Your task to perform on an android device: Add "energizer triple a" to the cart on ebay.com, then select checkout. Image 0: 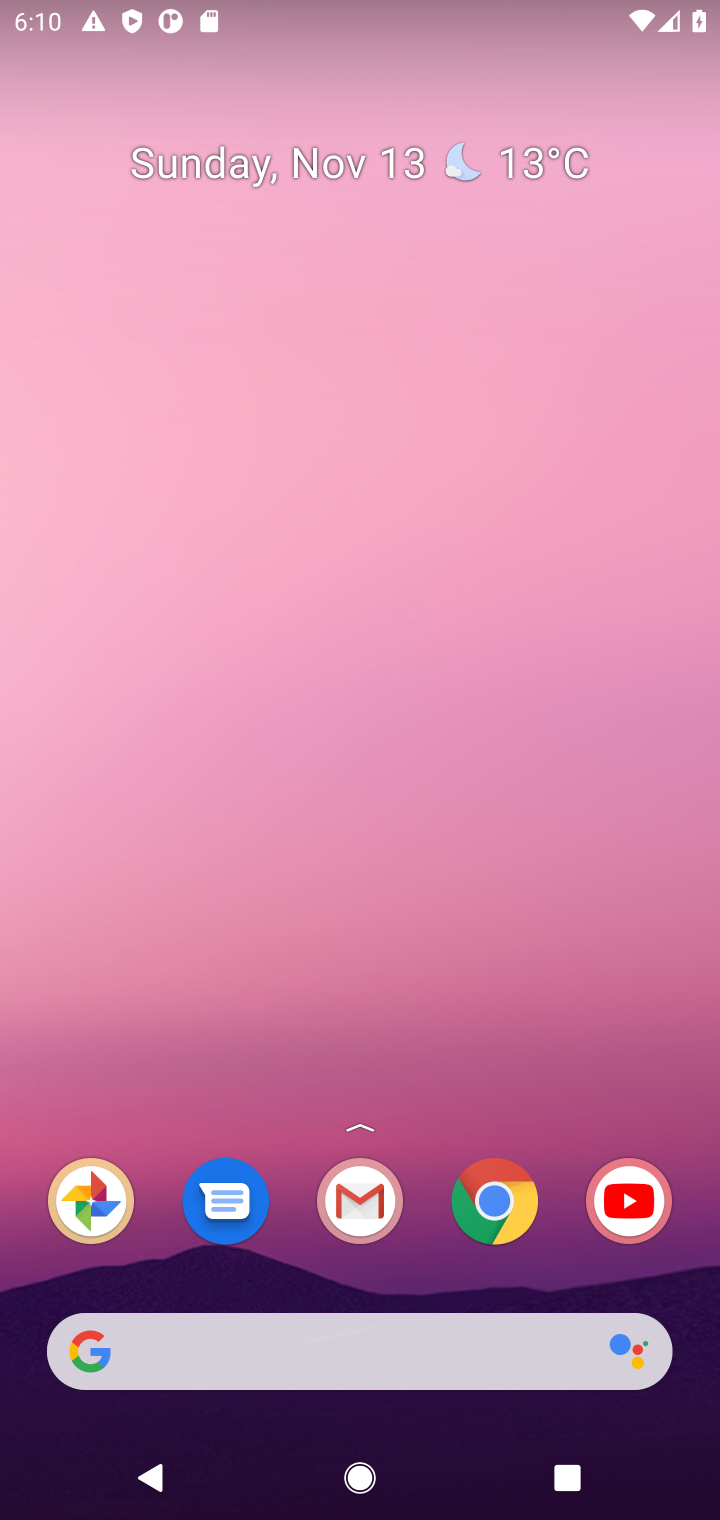
Step 0: drag from (454, 1288) to (410, 277)
Your task to perform on an android device: Add "energizer triple a" to the cart on ebay.com, then select checkout. Image 1: 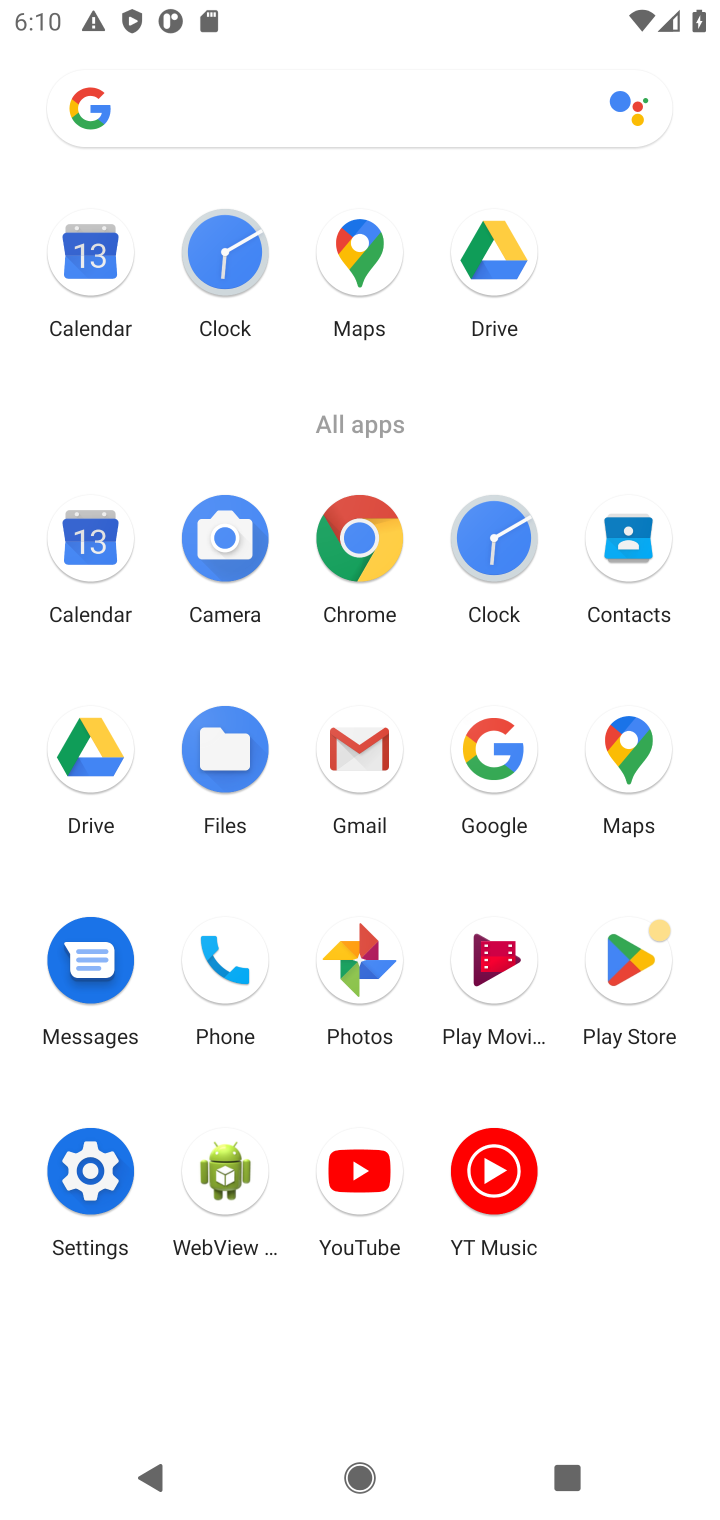
Step 1: click (371, 537)
Your task to perform on an android device: Add "energizer triple a" to the cart on ebay.com, then select checkout. Image 2: 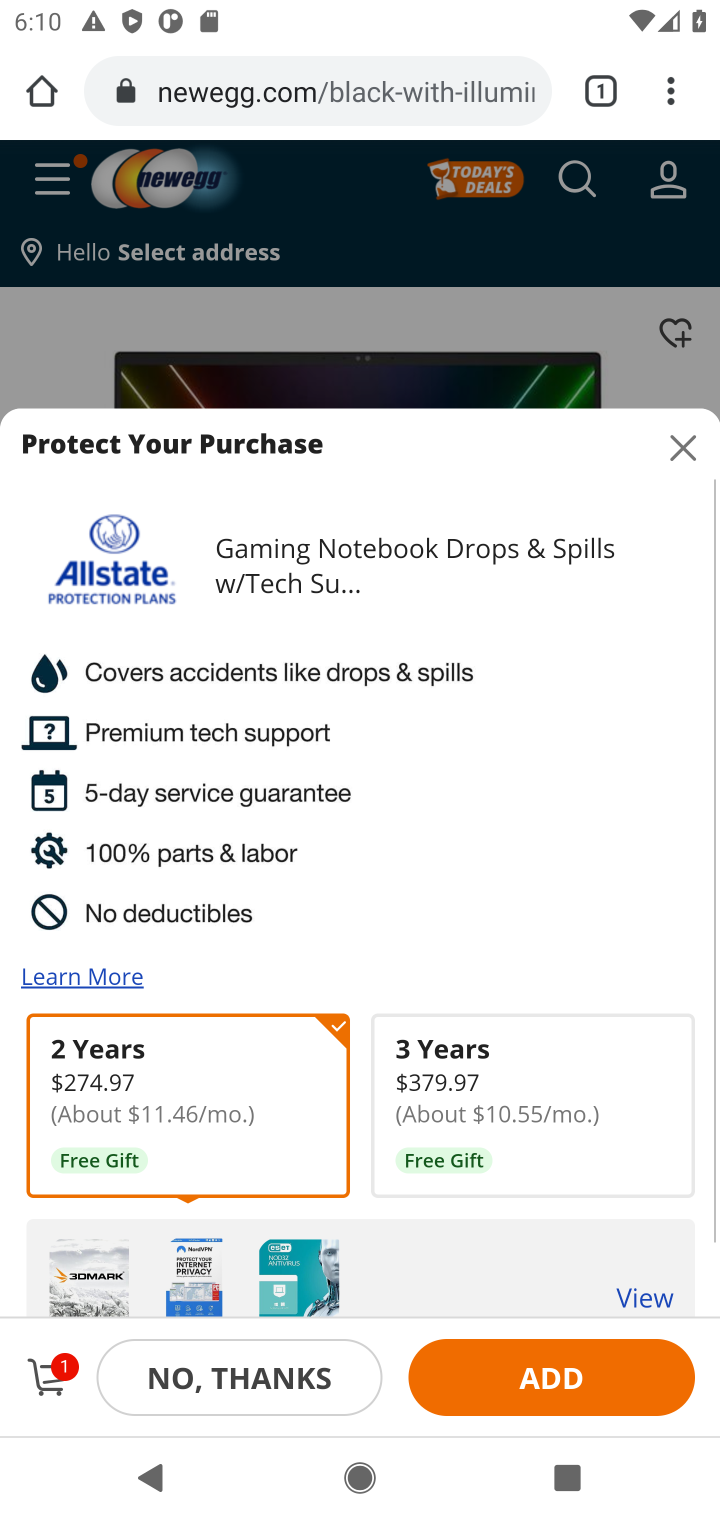
Step 2: click (340, 91)
Your task to perform on an android device: Add "energizer triple a" to the cart on ebay.com, then select checkout. Image 3: 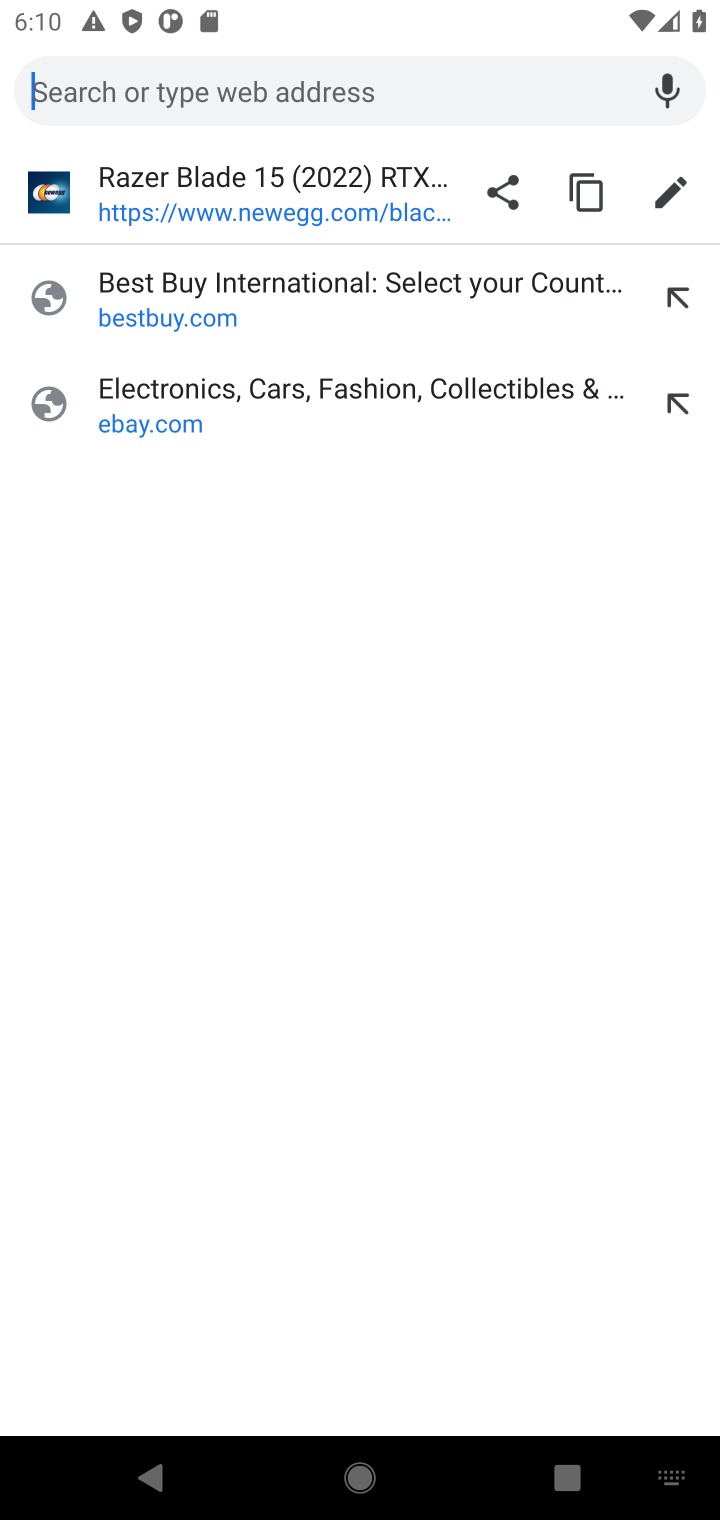
Step 3: type "ebay.com"
Your task to perform on an android device: Add "energizer triple a" to the cart on ebay.com, then select checkout. Image 4: 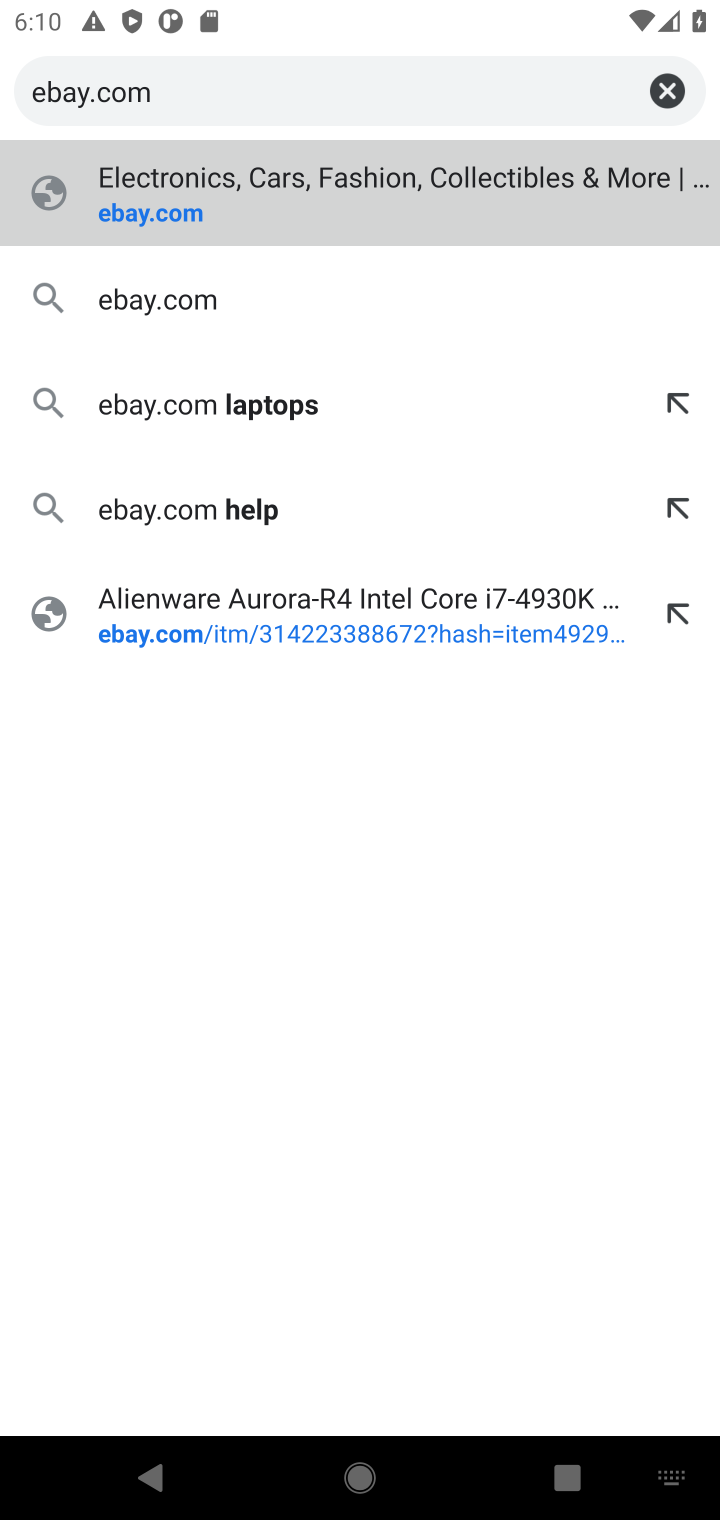
Step 4: press enter
Your task to perform on an android device: Add "energizer triple a" to the cart on ebay.com, then select checkout. Image 5: 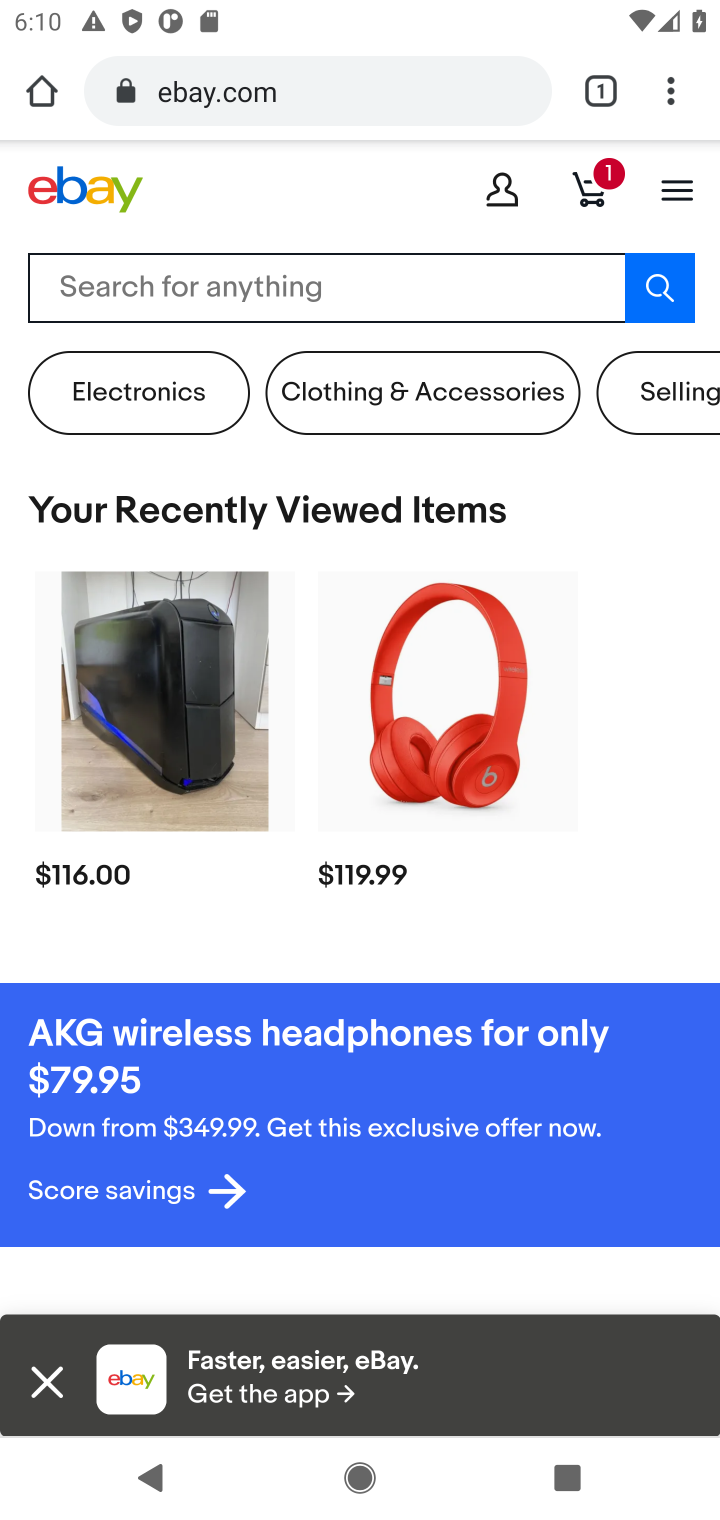
Step 5: click (399, 885)
Your task to perform on an android device: Add "energizer triple a" to the cart on ebay.com, then select checkout. Image 6: 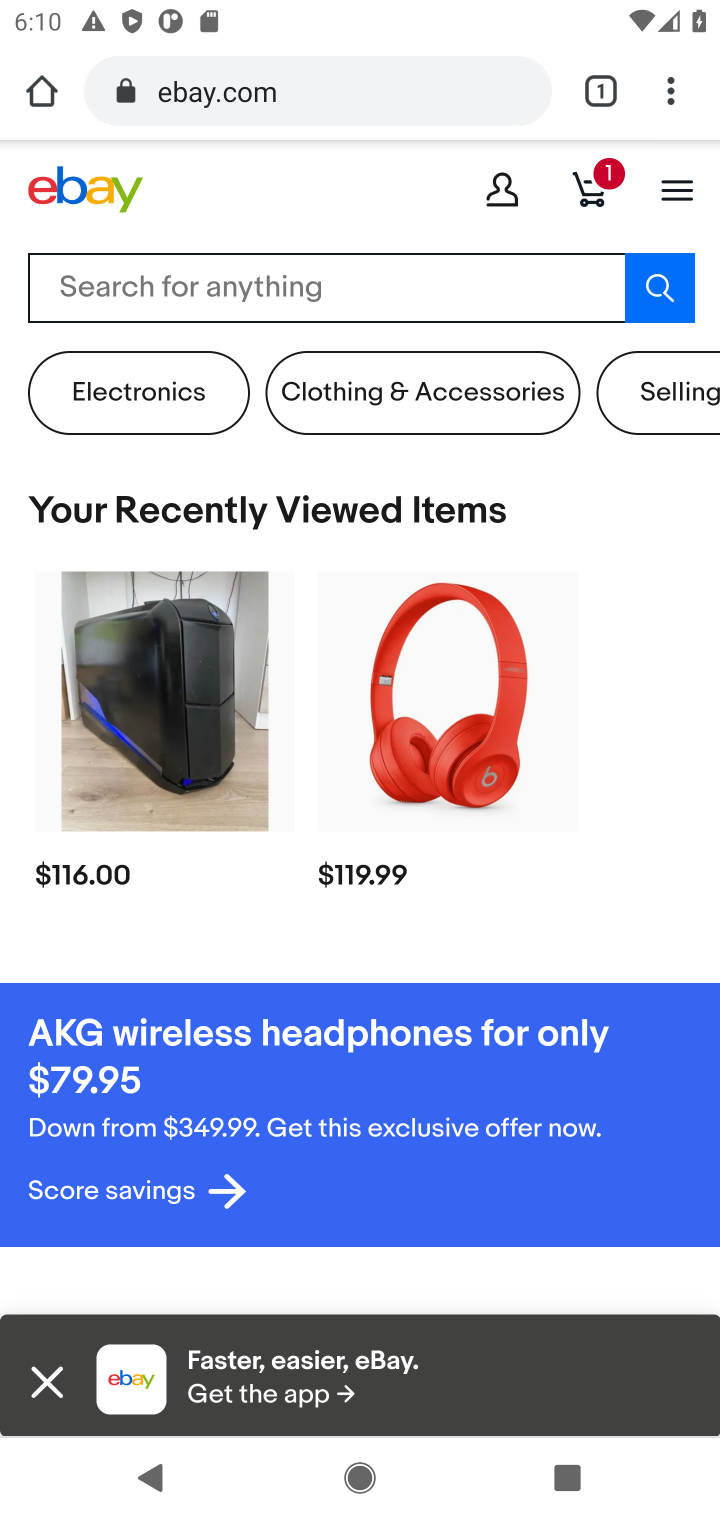
Step 6: click (429, 290)
Your task to perform on an android device: Add "energizer triple a" to the cart on ebay.com, then select checkout. Image 7: 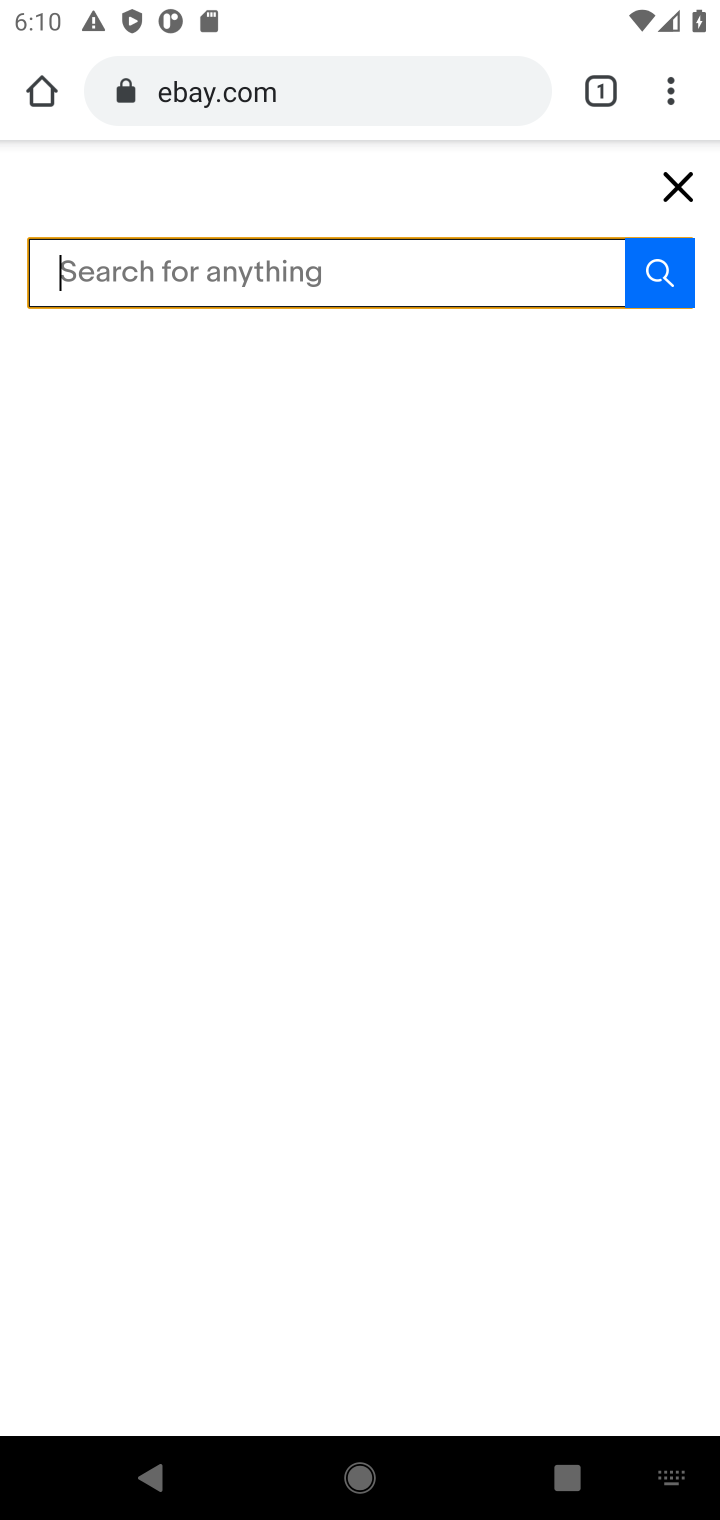
Step 7: type "energizer triple a"
Your task to perform on an android device: Add "energizer triple a" to the cart on ebay.com, then select checkout. Image 8: 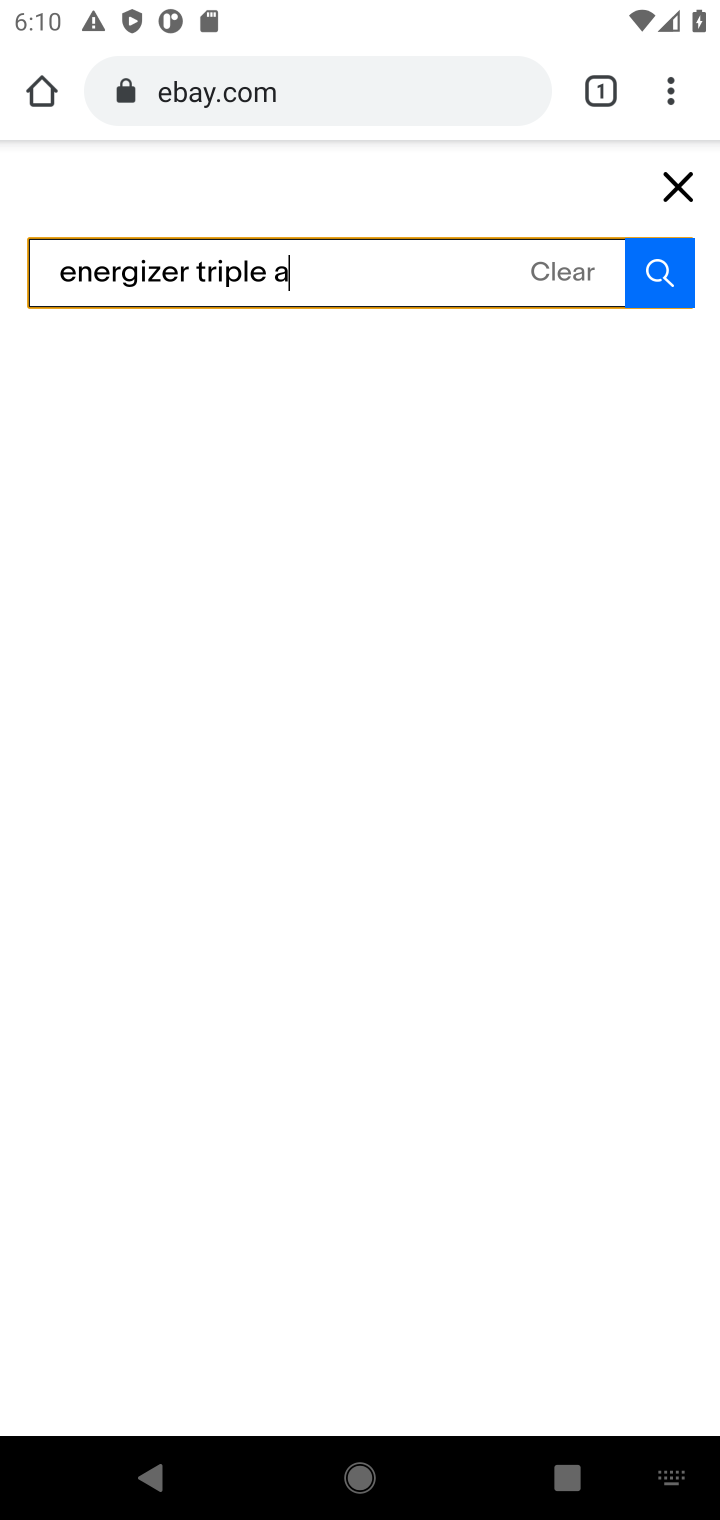
Step 8: press enter
Your task to perform on an android device: Add "energizer triple a" to the cart on ebay.com, then select checkout. Image 9: 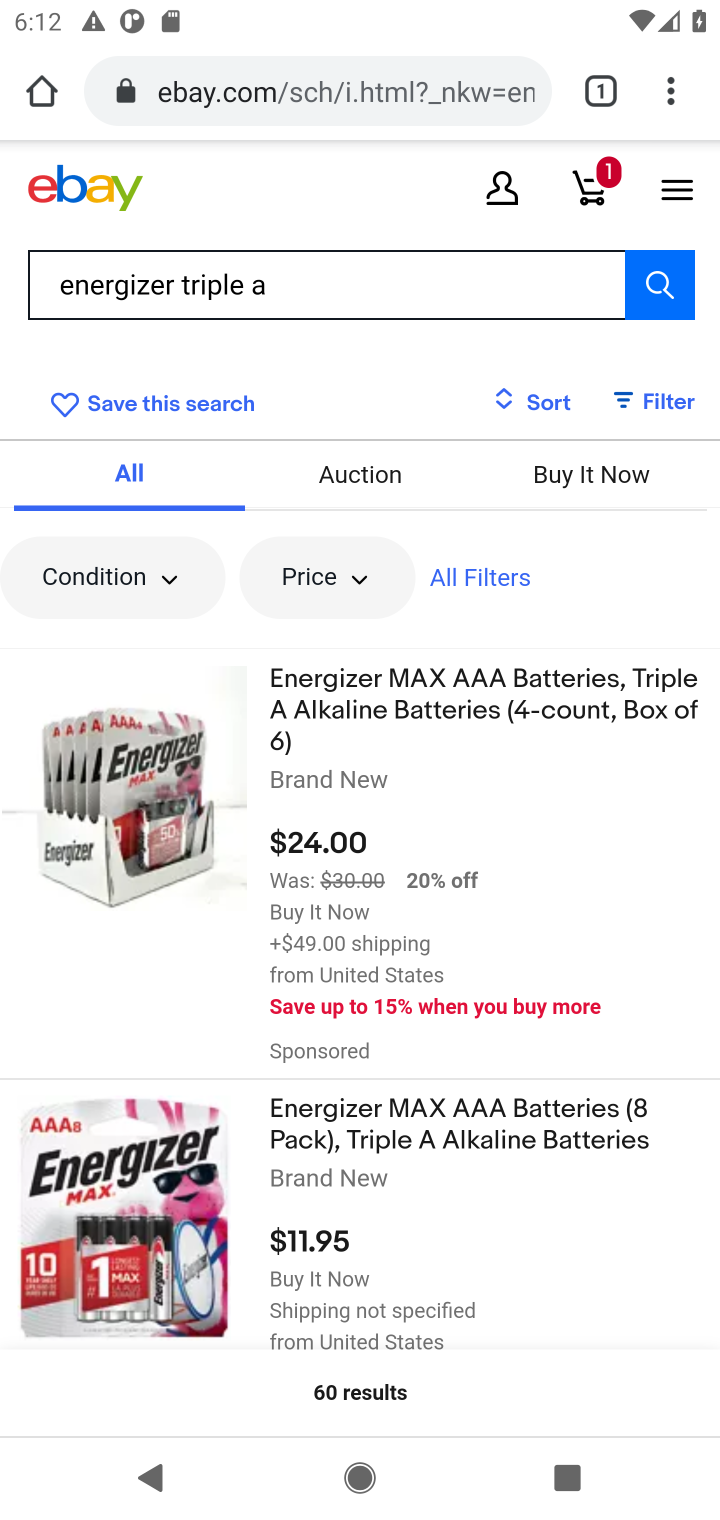
Step 9: click (430, 685)
Your task to perform on an android device: Add "energizer triple a" to the cart on ebay.com, then select checkout. Image 10: 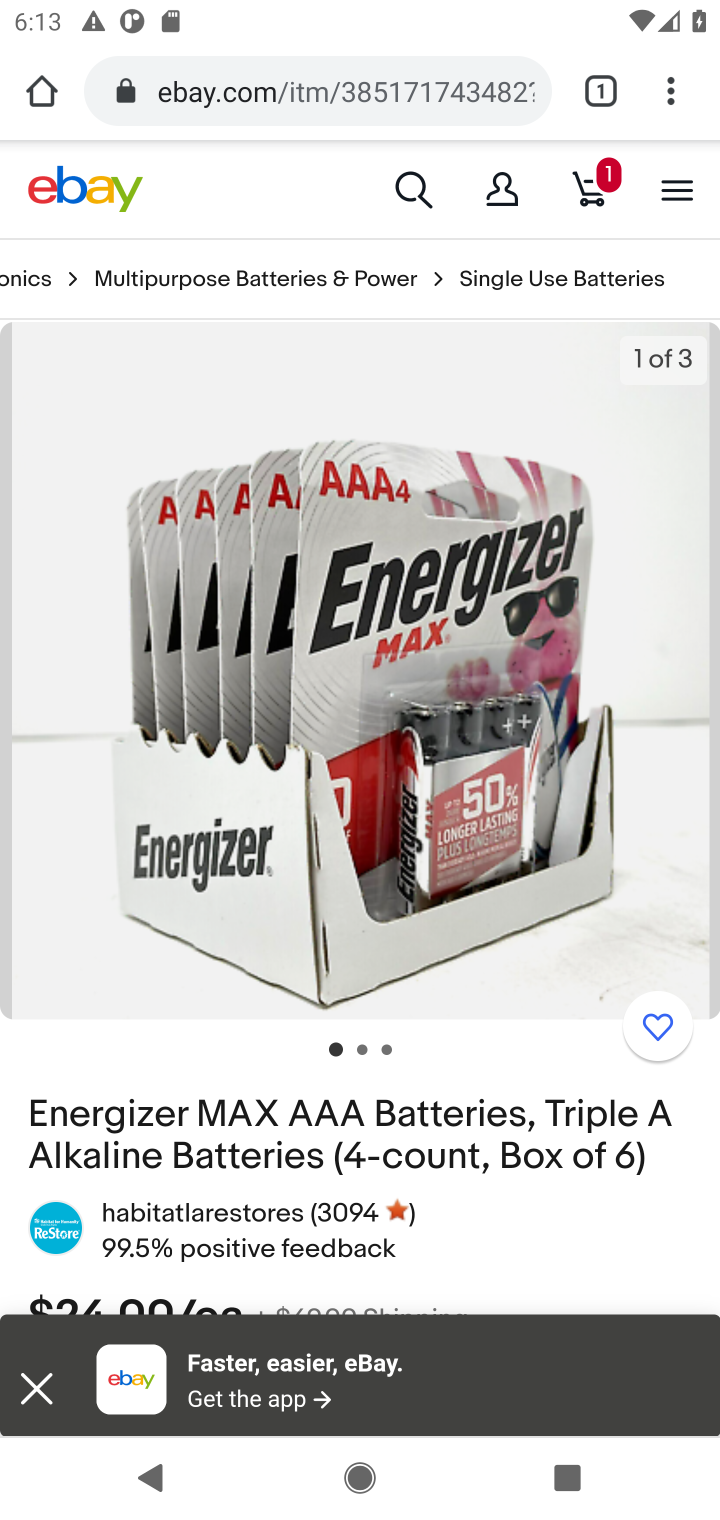
Step 10: drag from (410, 936) to (440, 496)
Your task to perform on an android device: Add "energizer triple a" to the cart on ebay.com, then select checkout. Image 11: 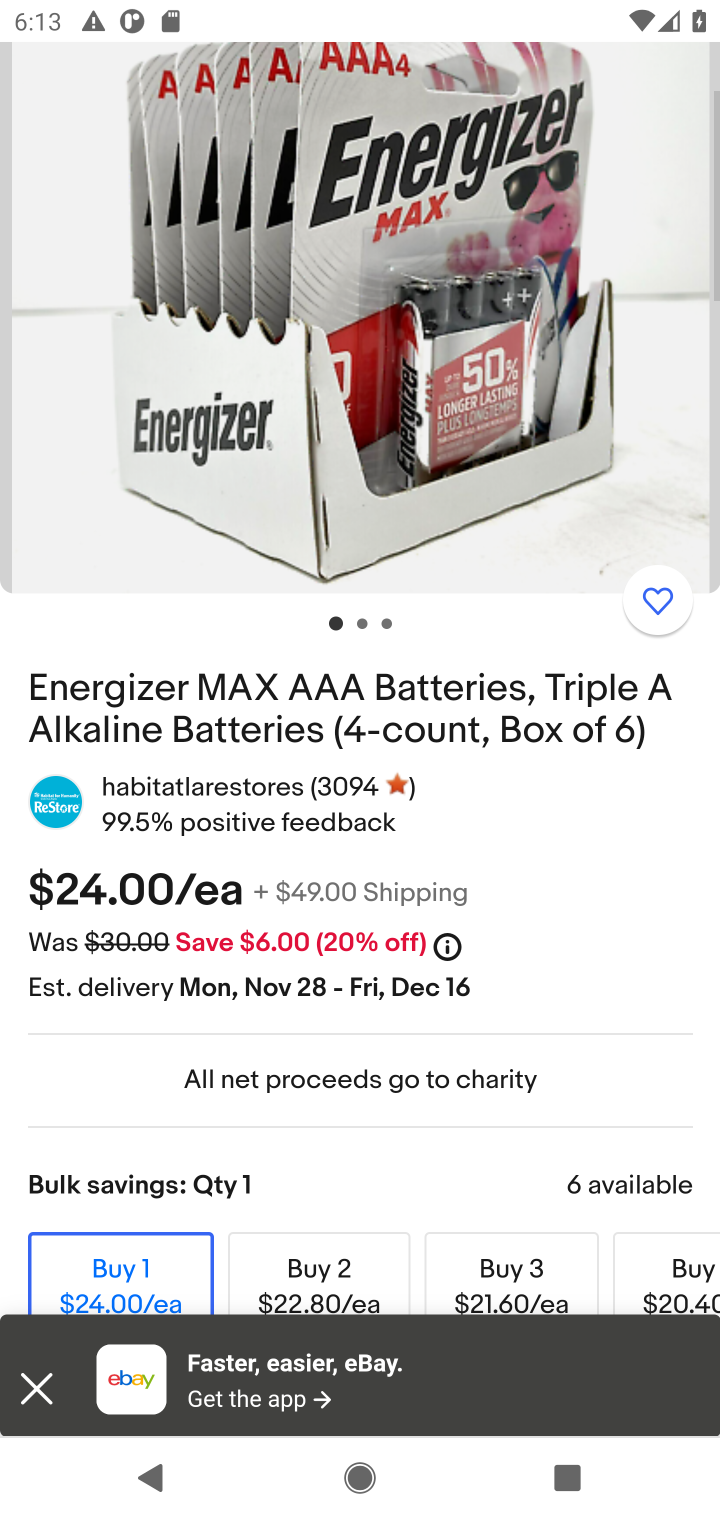
Step 11: drag from (442, 1051) to (509, 541)
Your task to perform on an android device: Add "energizer triple a" to the cart on ebay.com, then select checkout. Image 12: 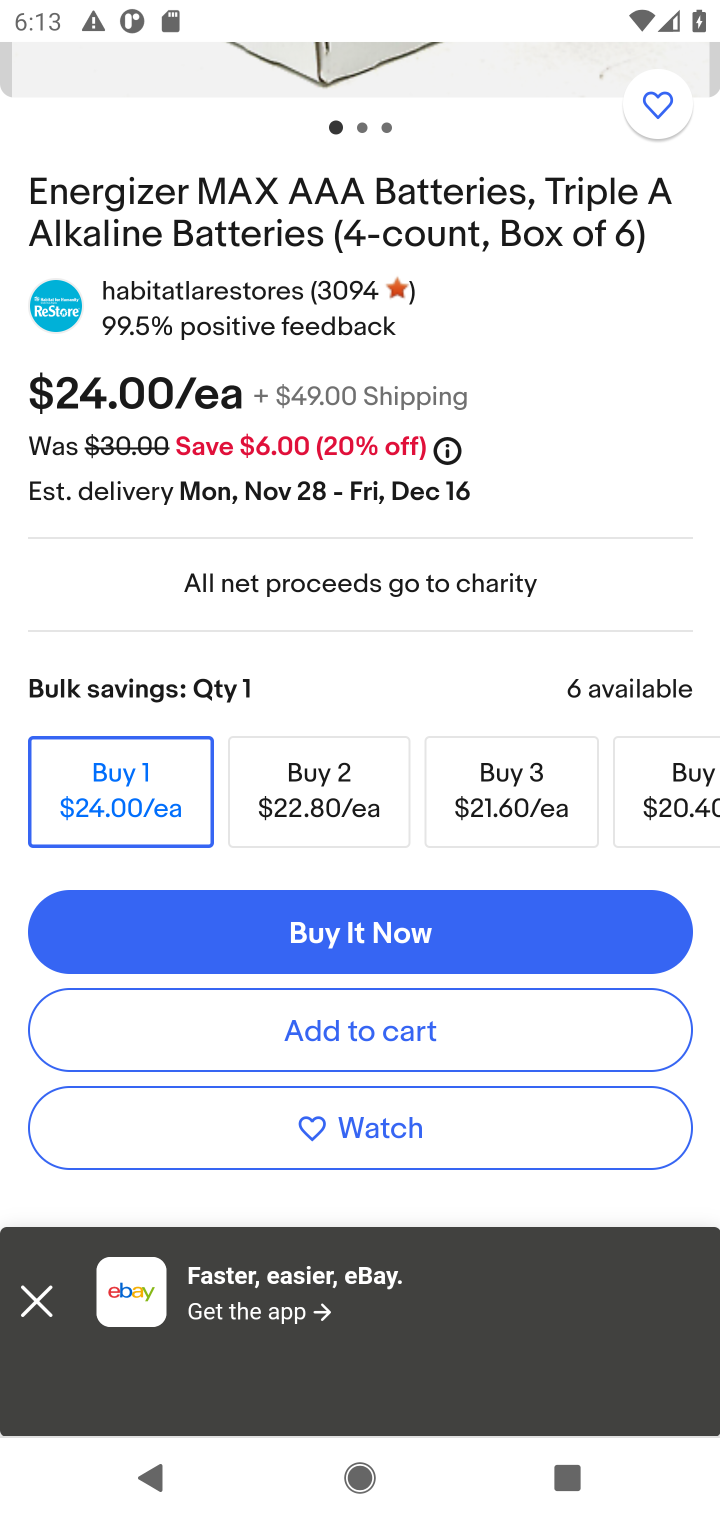
Step 12: click (365, 1036)
Your task to perform on an android device: Add "energizer triple a" to the cart on ebay.com, then select checkout. Image 13: 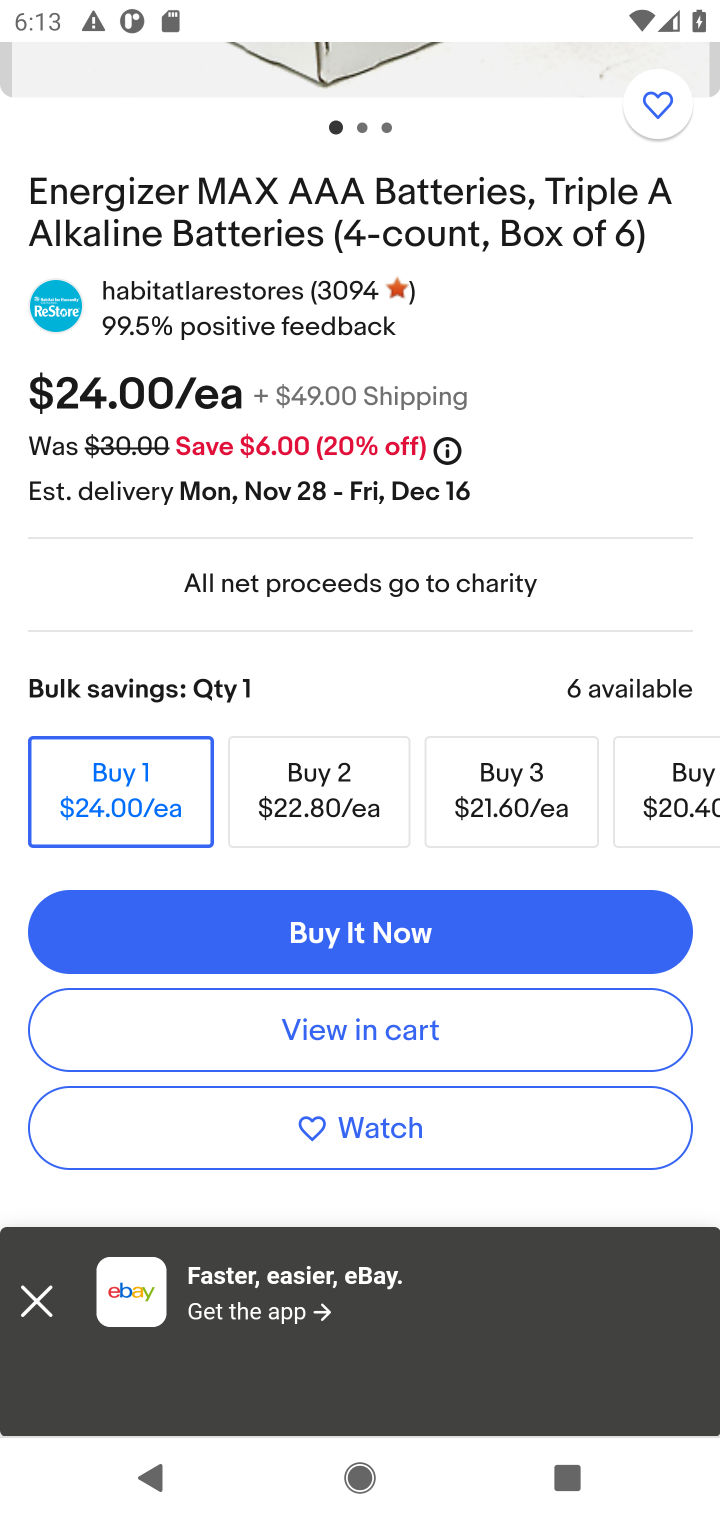
Step 13: click (520, 1040)
Your task to perform on an android device: Add "energizer triple a" to the cart on ebay.com, then select checkout. Image 14: 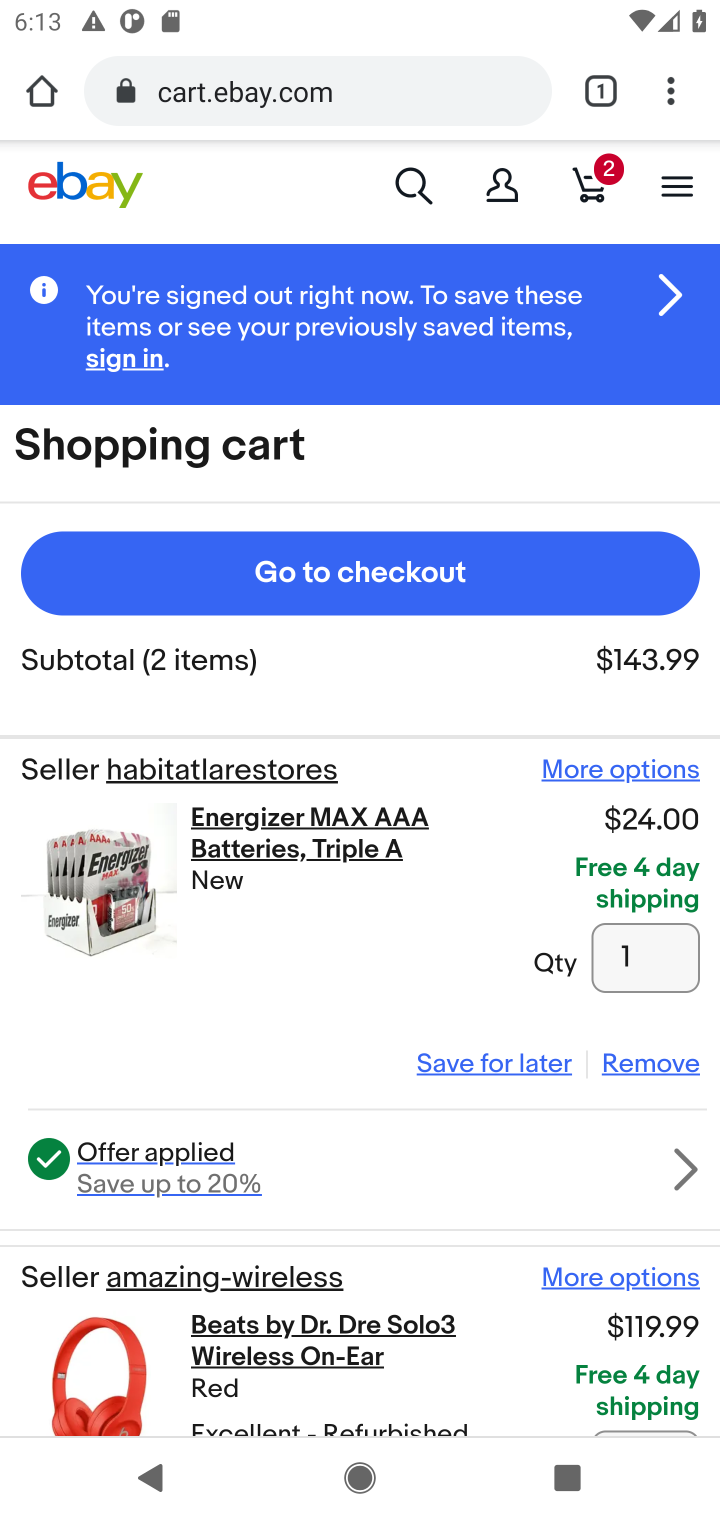
Step 14: click (524, 550)
Your task to perform on an android device: Add "energizer triple a" to the cart on ebay.com, then select checkout. Image 15: 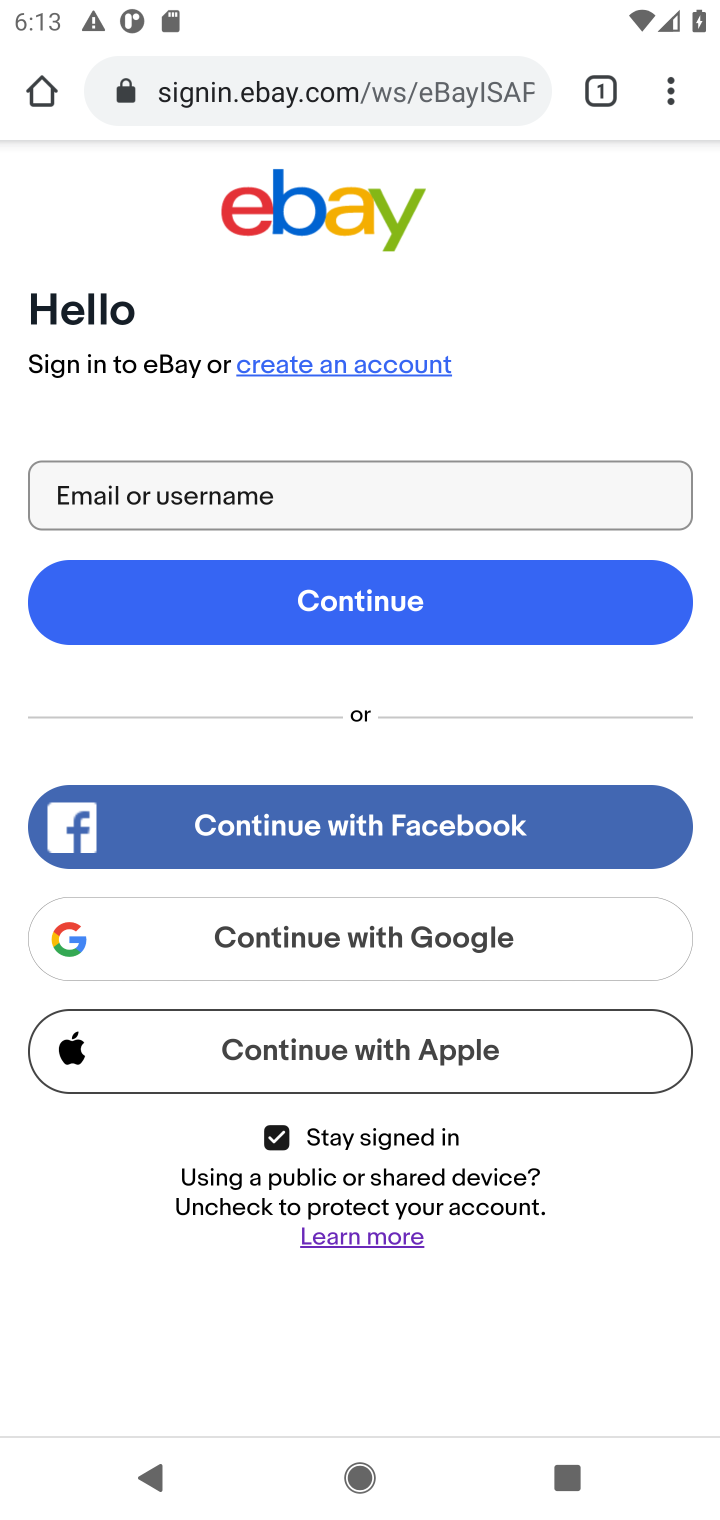
Step 15: task complete